Your task to perform on an android device: What is the recent news? Image 0: 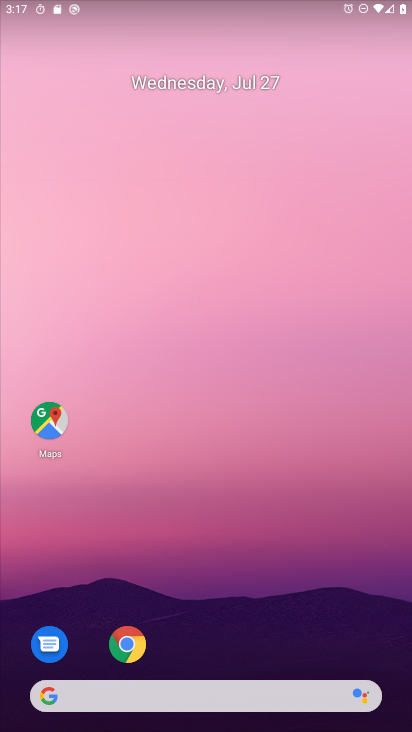
Step 0: click (222, 58)
Your task to perform on an android device: What is the recent news? Image 1: 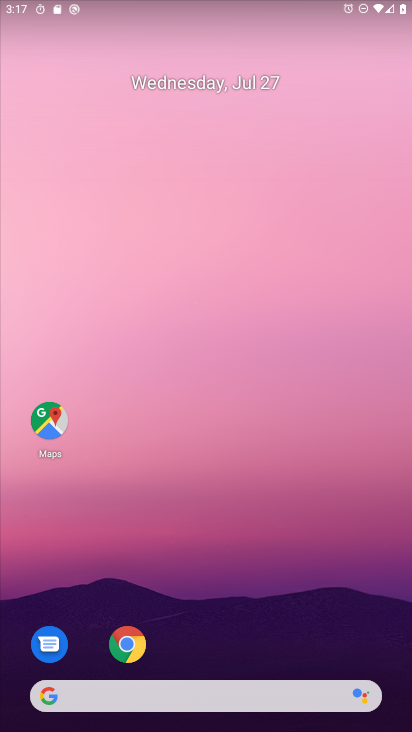
Step 1: drag from (201, 638) to (237, 58)
Your task to perform on an android device: What is the recent news? Image 2: 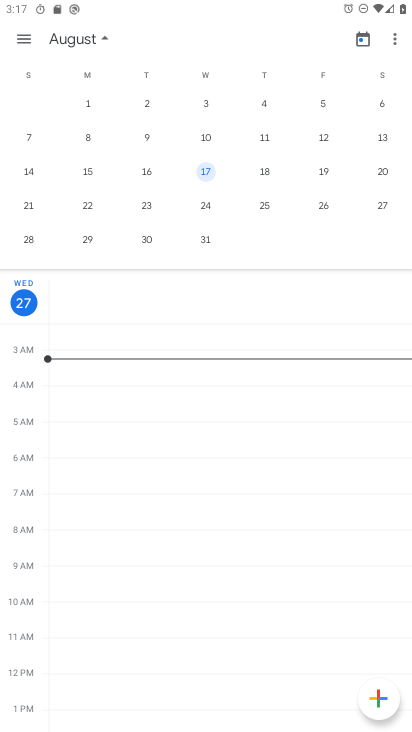
Step 2: press home button
Your task to perform on an android device: What is the recent news? Image 3: 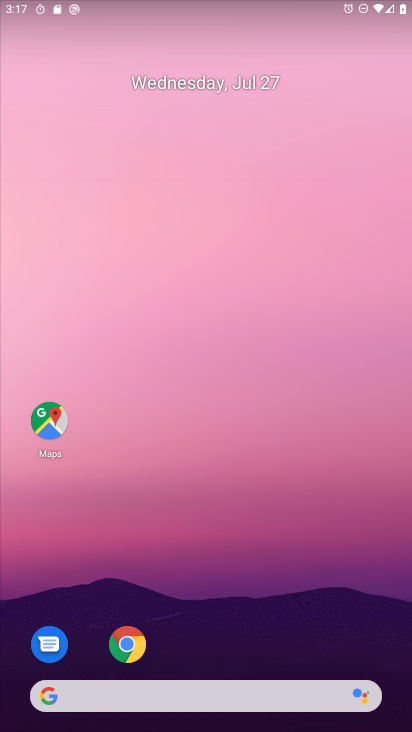
Step 3: drag from (188, 659) to (241, 171)
Your task to perform on an android device: What is the recent news? Image 4: 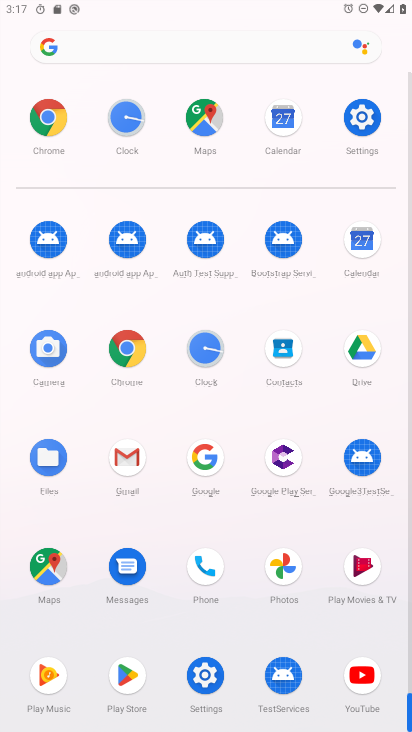
Step 4: click (161, 37)
Your task to perform on an android device: What is the recent news? Image 5: 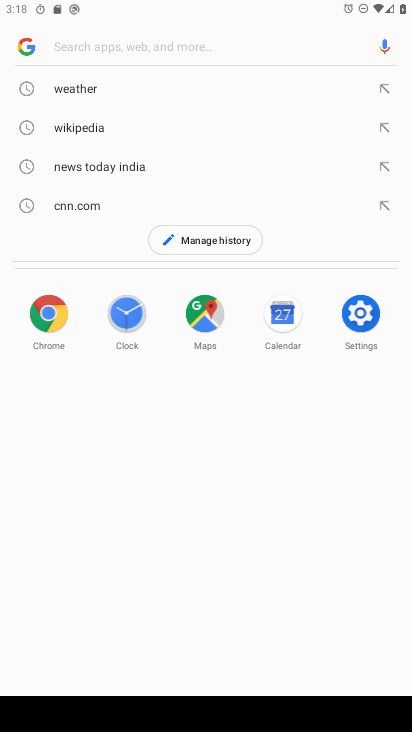
Step 5: type "recent news?"
Your task to perform on an android device: What is the recent news? Image 6: 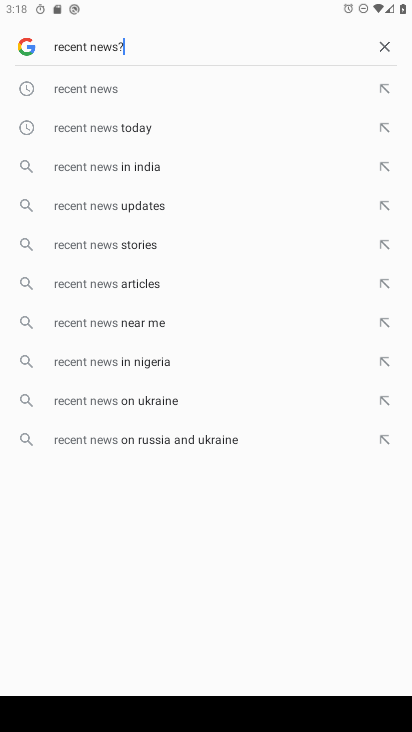
Step 6: type ""
Your task to perform on an android device: What is the recent news? Image 7: 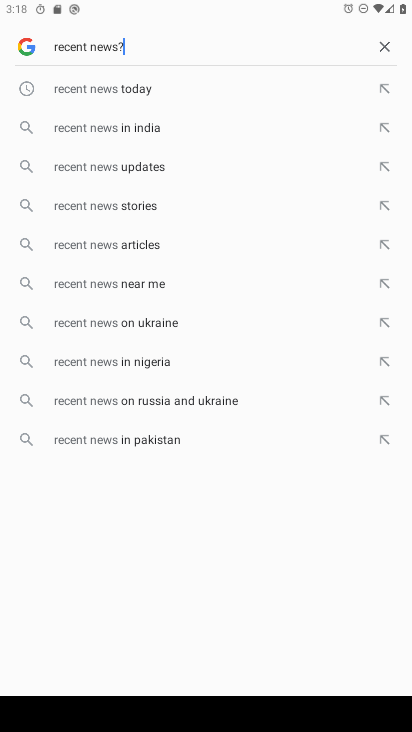
Step 7: click (126, 93)
Your task to perform on an android device: What is the recent news? Image 8: 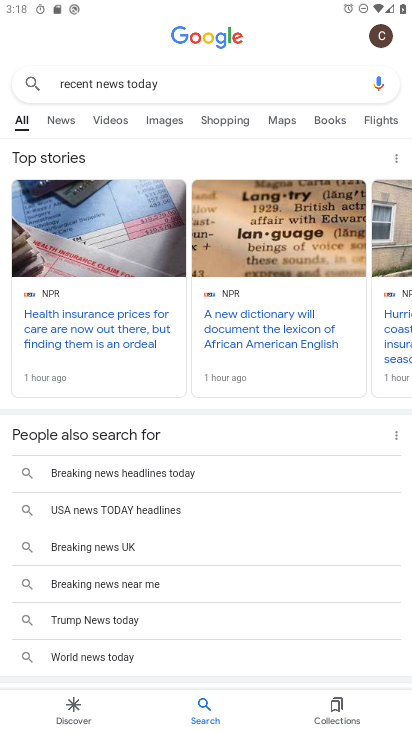
Step 8: drag from (133, 151) to (131, 413)
Your task to perform on an android device: What is the recent news? Image 9: 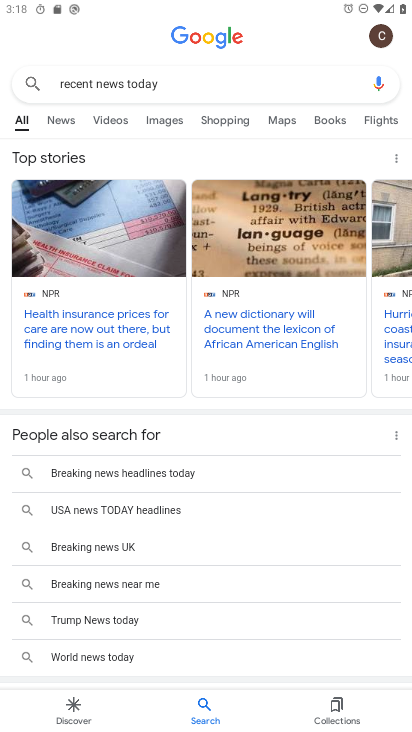
Step 9: drag from (183, 168) to (299, 485)
Your task to perform on an android device: What is the recent news? Image 10: 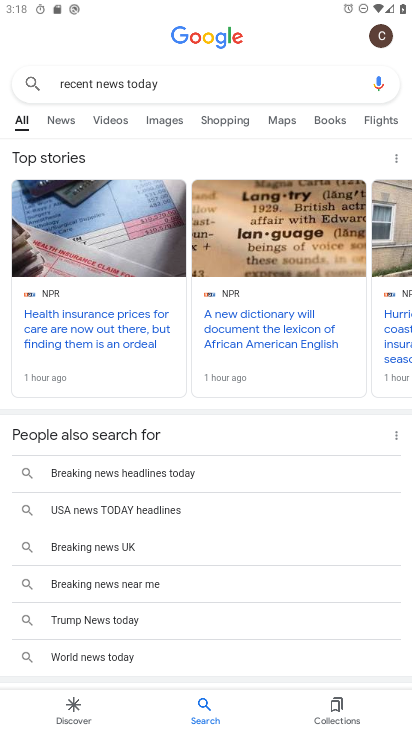
Step 10: drag from (190, 473) to (246, 192)
Your task to perform on an android device: What is the recent news? Image 11: 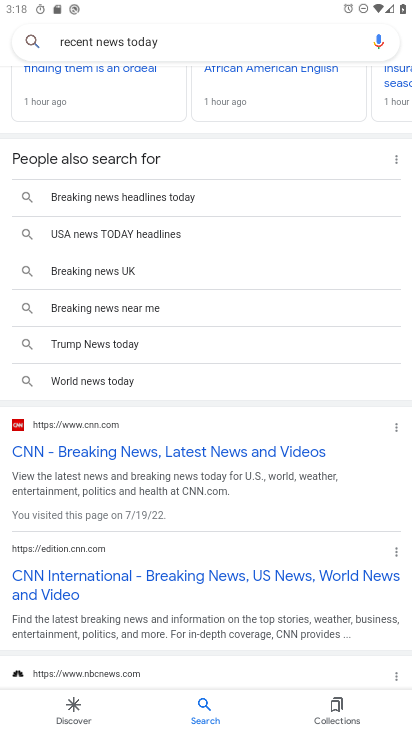
Step 11: drag from (232, 541) to (263, 180)
Your task to perform on an android device: What is the recent news? Image 12: 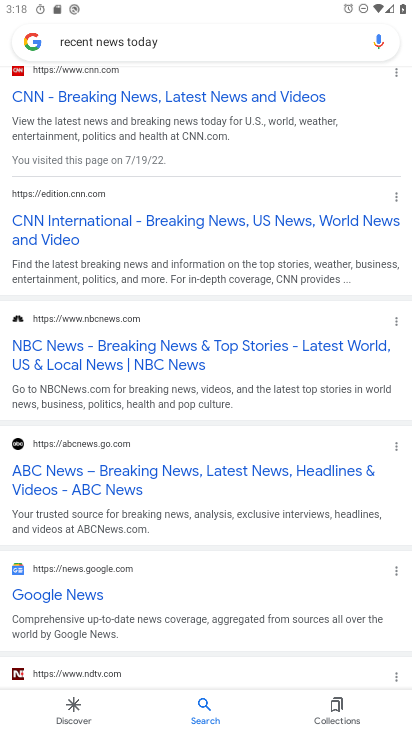
Step 12: click (88, 100)
Your task to perform on an android device: What is the recent news? Image 13: 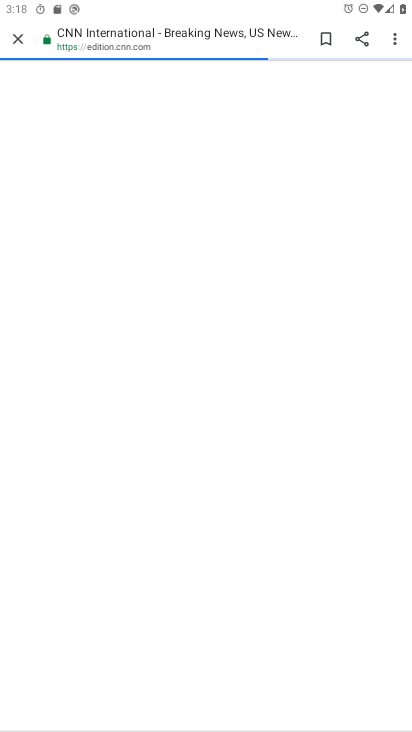
Step 13: task complete